Your task to perform on an android device: Go to Reddit.com Image 0: 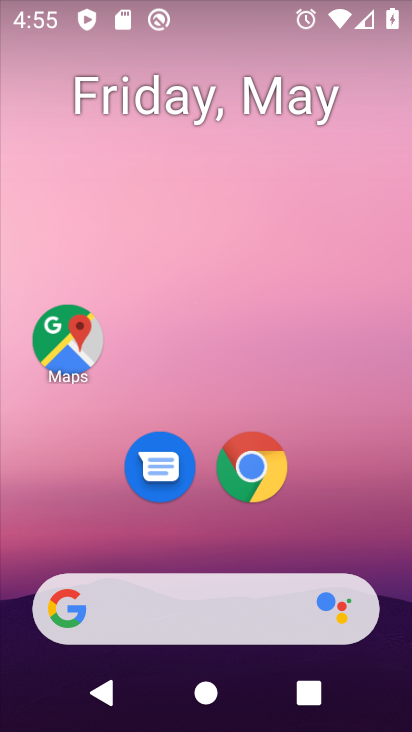
Step 0: click (250, 465)
Your task to perform on an android device: Go to Reddit.com Image 1: 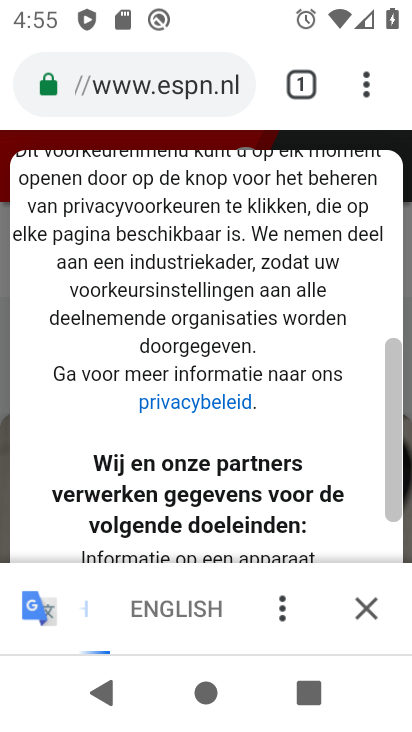
Step 1: click (192, 64)
Your task to perform on an android device: Go to Reddit.com Image 2: 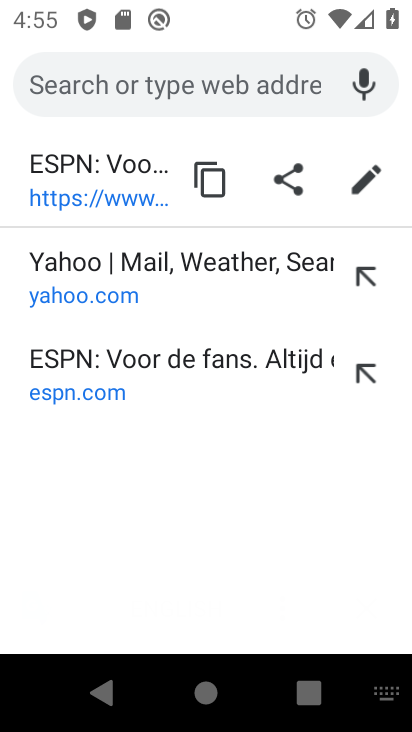
Step 2: type "reddit.com"
Your task to perform on an android device: Go to Reddit.com Image 3: 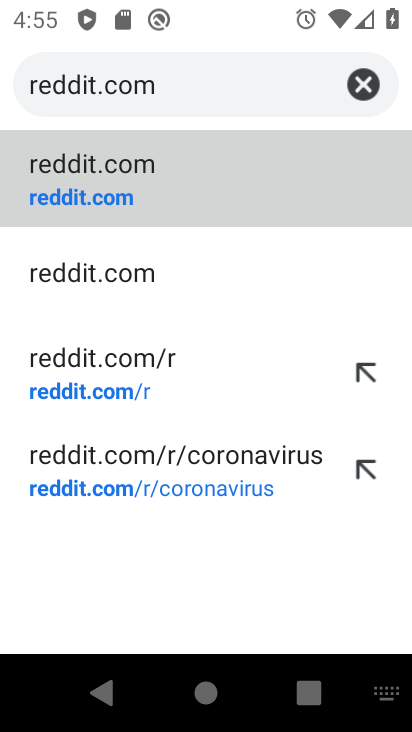
Step 3: click (108, 199)
Your task to perform on an android device: Go to Reddit.com Image 4: 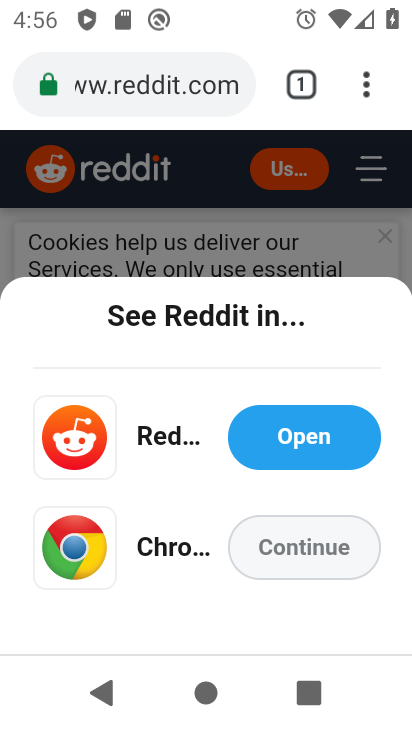
Step 4: task complete